Your task to perform on an android device: Search for "sony triple a" on costco.com, select the first entry, add it to the cart, then select checkout. Image 0: 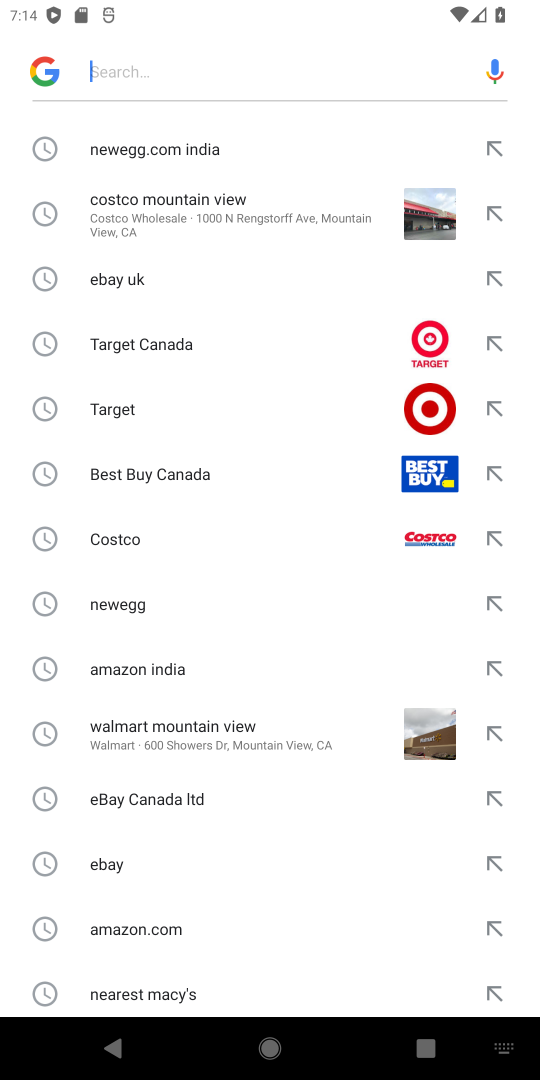
Step 0: press home button
Your task to perform on an android device: Search for "sony triple a" on costco.com, select the first entry, add it to the cart, then select checkout. Image 1: 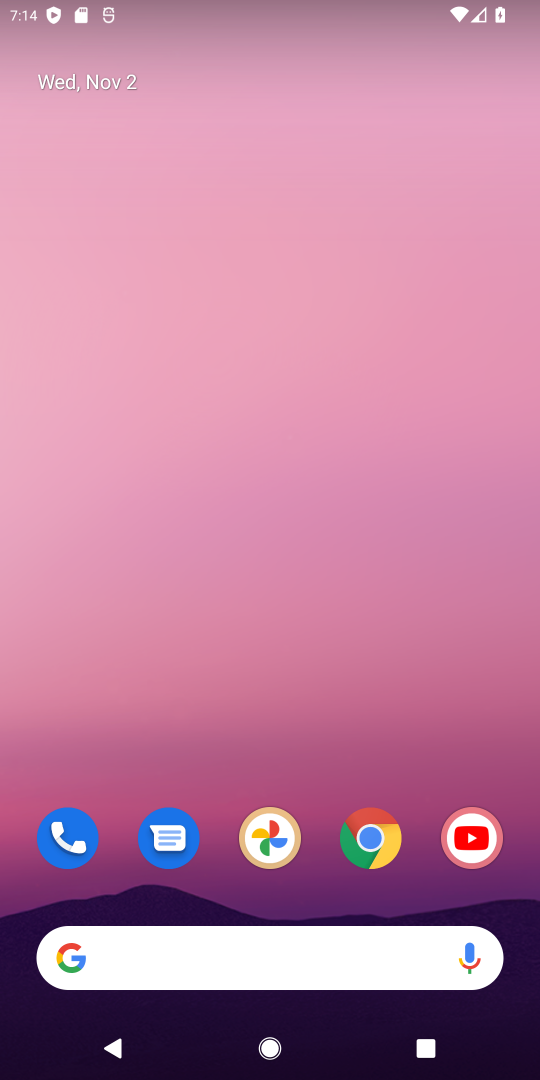
Step 1: click (390, 858)
Your task to perform on an android device: Search for "sony triple a" on costco.com, select the first entry, add it to the cart, then select checkout. Image 2: 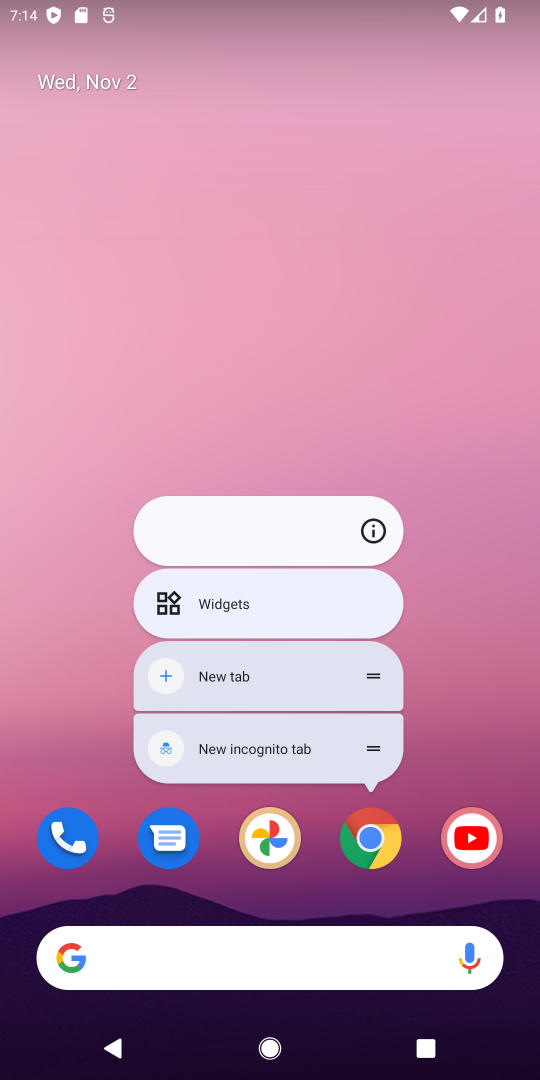
Step 2: click (384, 834)
Your task to perform on an android device: Search for "sony triple a" on costco.com, select the first entry, add it to the cart, then select checkout. Image 3: 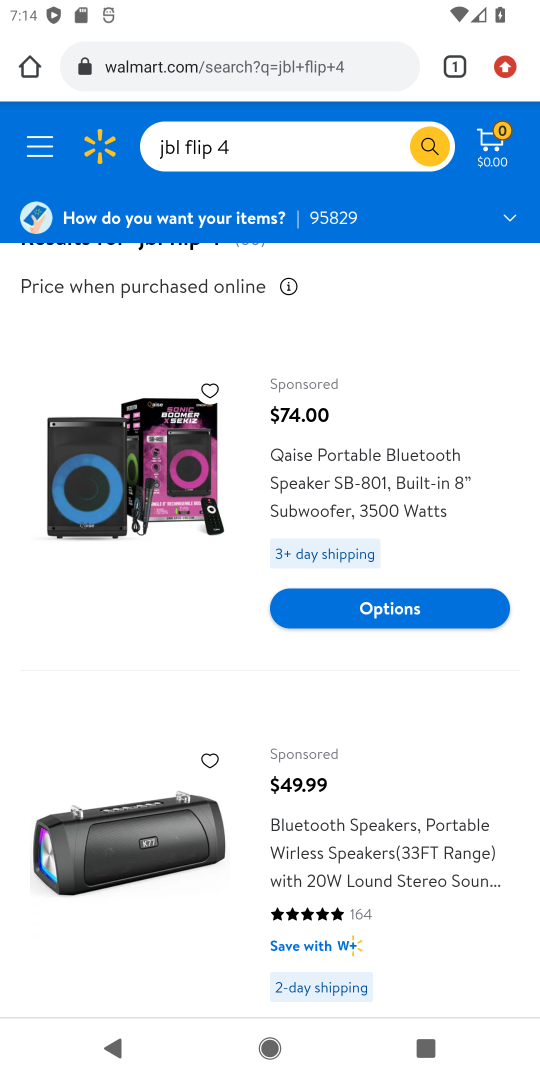
Step 3: click (377, 64)
Your task to perform on an android device: Search for "sony triple a" on costco.com, select the first entry, add it to the cart, then select checkout. Image 4: 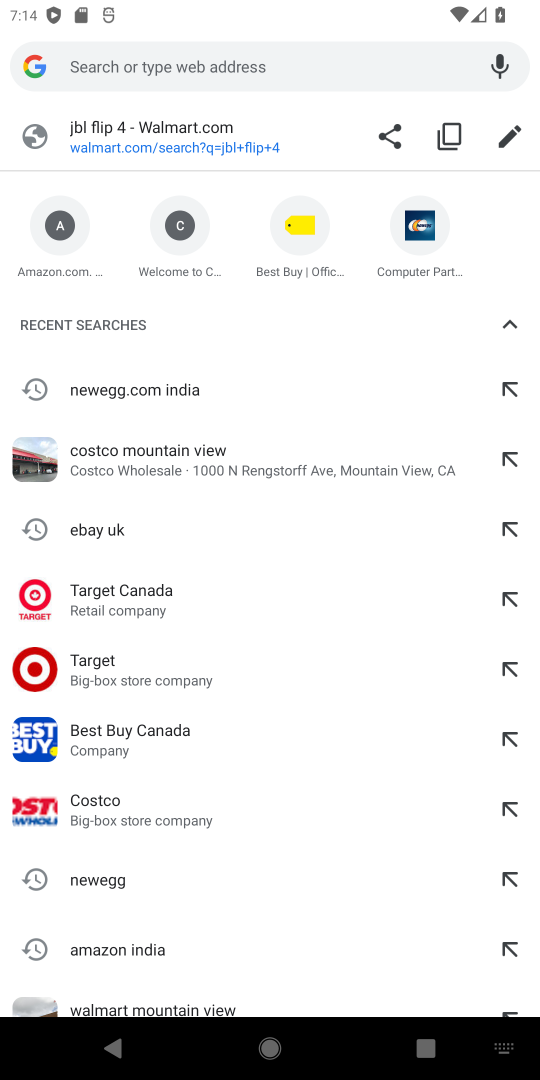
Step 4: type "costco.com"
Your task to perform on an android device: Search for "sony triple a" on costco.com, select the first entry, add it to the cart, then select checkout. Image 5: 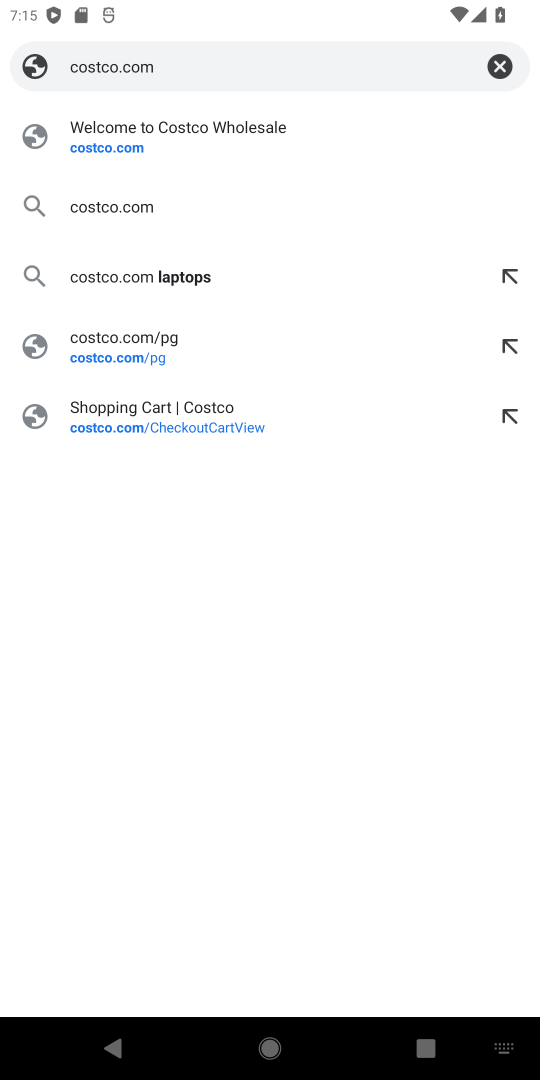
Step 5: press enter
Your task to perform on an android device: Search for "sony triple a" on costco.com, select the first entry, add it to the cart, then select checkout. Image 6: 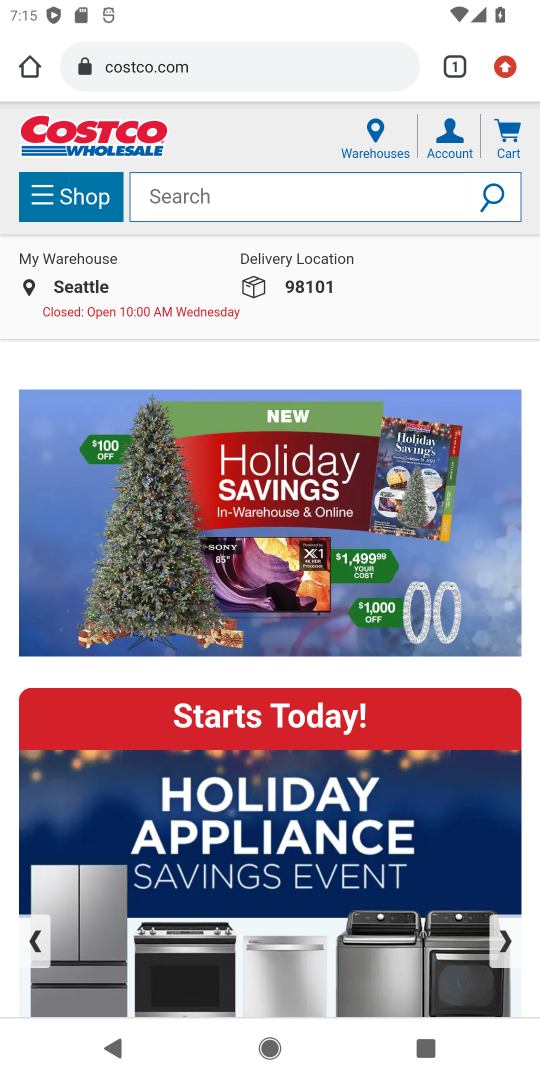
Step 6: click (271, 193)
Your task to perform on an android device: Search for "sony triple a" on costco.com, select the first entry, add it to the cart, then select checkout. Image 7: 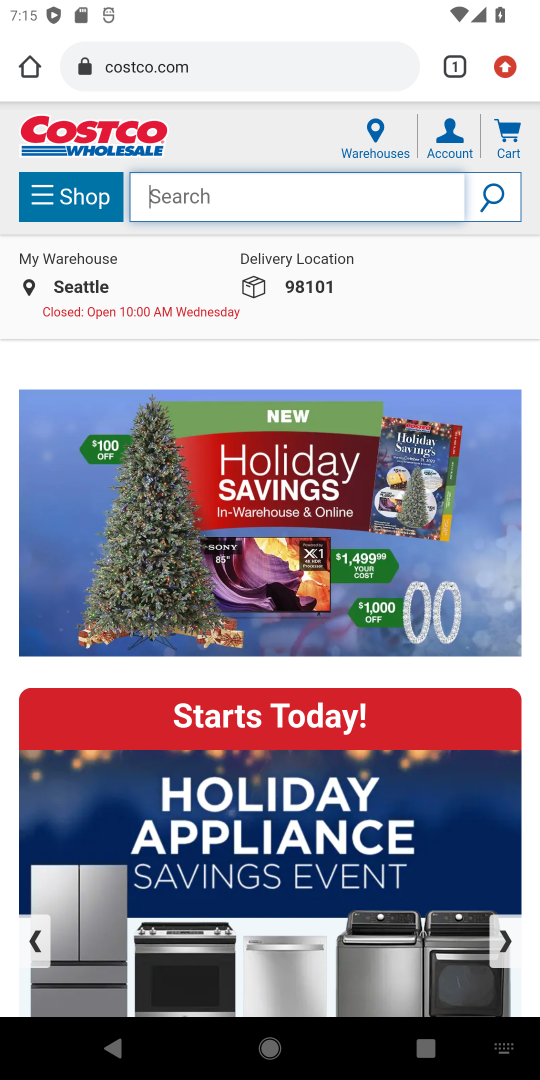
Step 7: type "sony triple a"
Your task to perform on an android device: Search for "sony triple a" on costco.com, select the first entry, add it to the cart, then select checkout. Image 8: 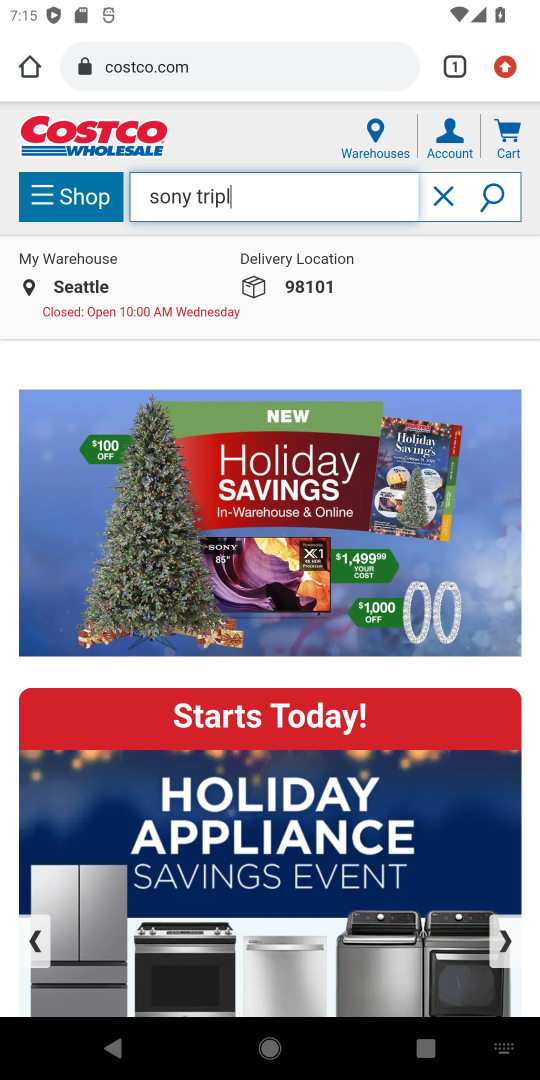
Step 8: type ""
Your task to perform on an android device: Search for "sony triple a" on costco.com, select the first entry, add it to the cart, then select checkout. Image 9: 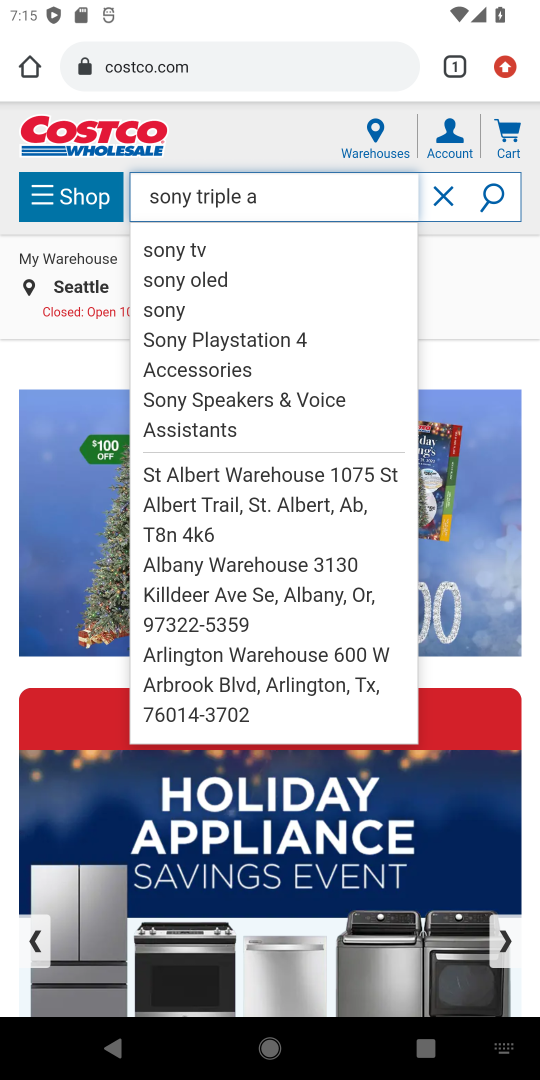
Step 9: press enter
Your task to perform on an android device: Search for "sony triple a" on costco.com, select the first entry, add it to the cart, then select checkout. Image 10: 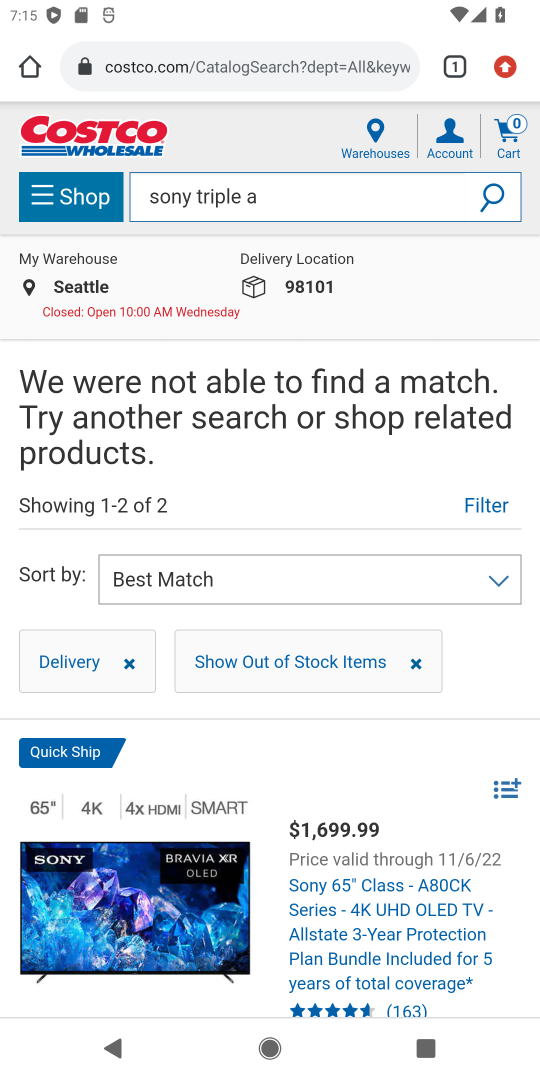
Step 10: task complete